Your task to perform on an android device: change notification settings in the gmail app Image 0: 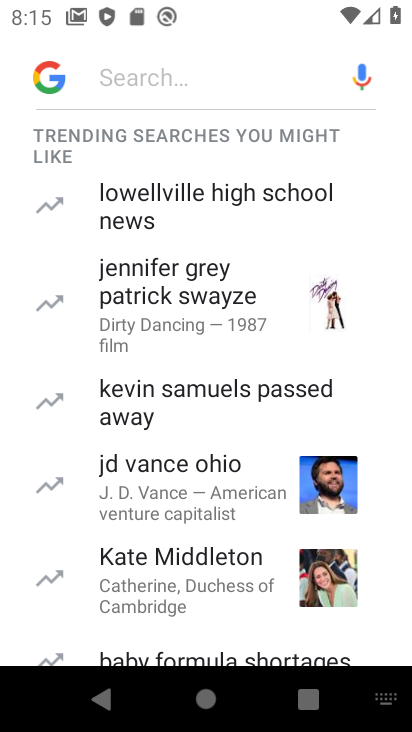
Step 0: press home button
Your task to perform on an android device: change notification settings in the gmail app Image 1: 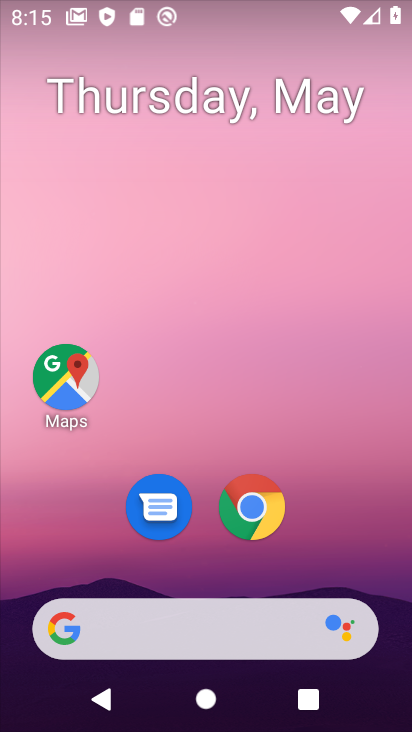
Step 1: drag from (358, 554) to (309, 101)
Your task to perform on an android device: change notification settings in the gmail app Image 2: 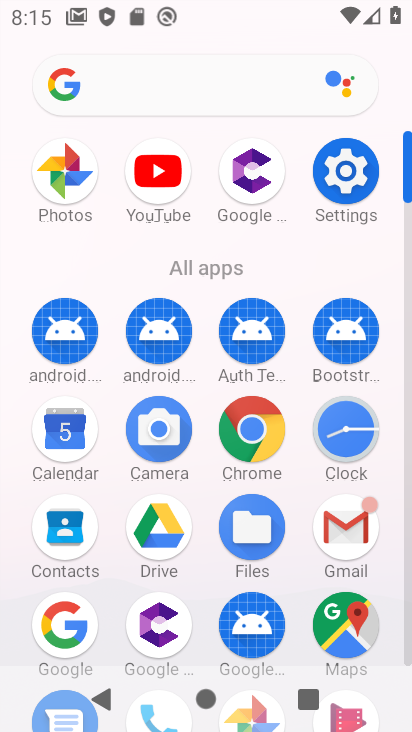
Step 2: click (344, 532)
Your task to perform on an android device: change notification settings in the gmail app Image 3: 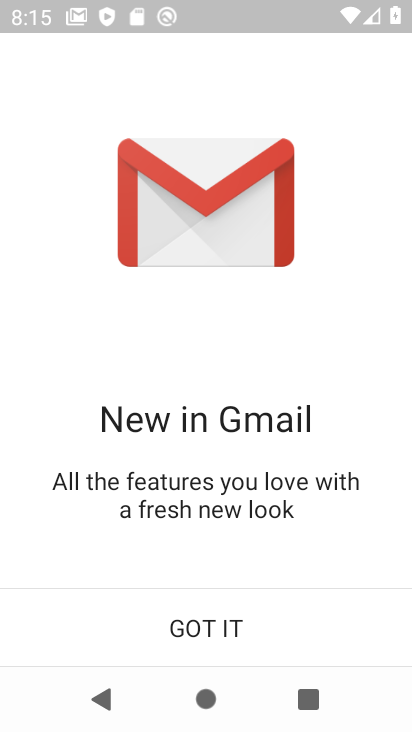
Step 3: click (242, 627)
Your task to perform on an android device: change notification settings in the gmail app Image 4: 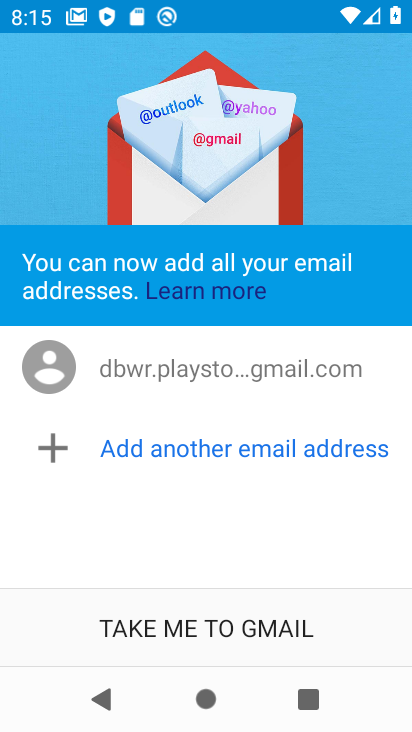
Step 4: click (242, 627)
Your task to perform on an android device: change notification settings in the gmail app Image 5: 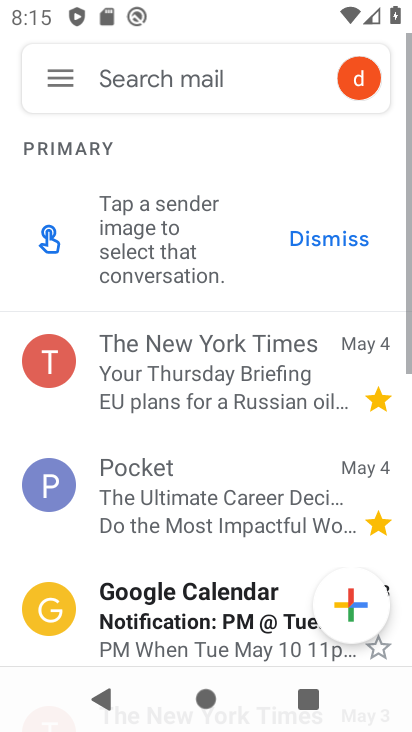
Step 5: click (55, 78)
Your task to perform on an android device: change notification settings in the gmail app Image 6: 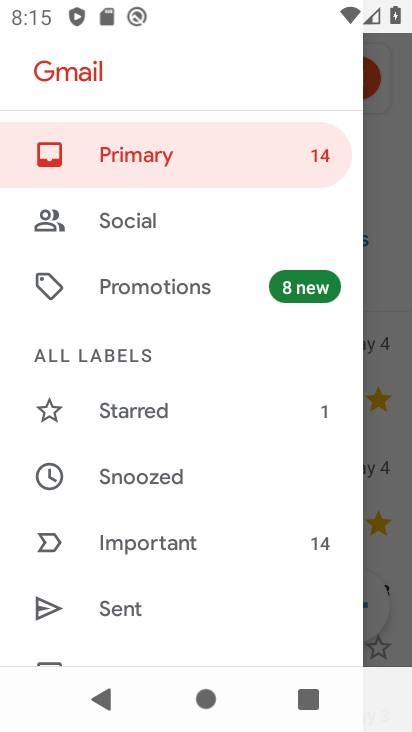
Step 6: drag from (188, 620) to (193, 235)
Your task to perform on an android device: change notification settings in the gmail app Image 7: 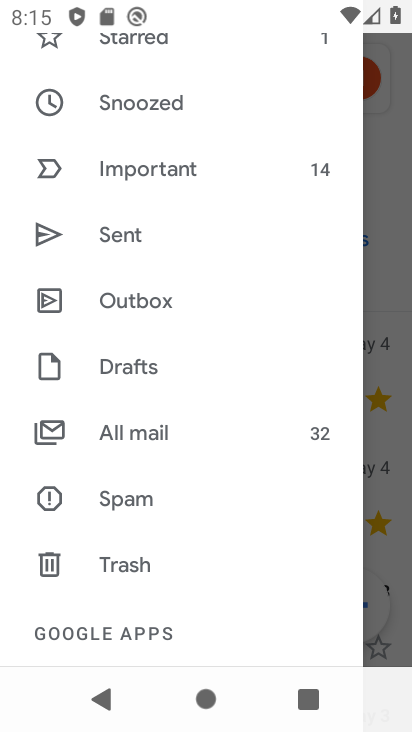
Step 7: drag from (180, 599) to (200, 236)
Your task to perform on an android device: change notification settings in the gmail app Image 8: 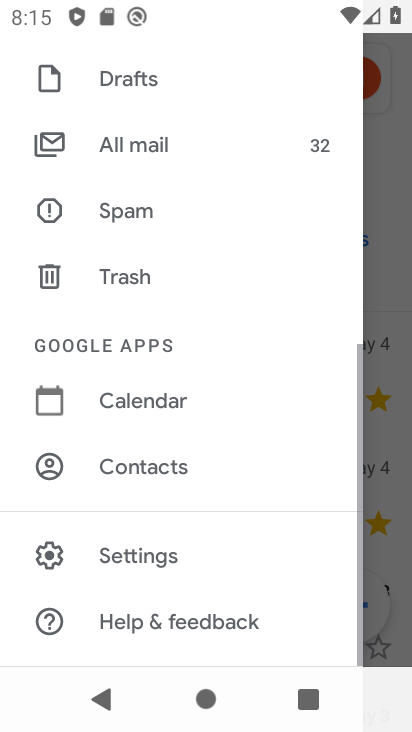
Step 8: click (161, 561)
Your task to perform on an android device: change notification settings in the gmail app Image 9: 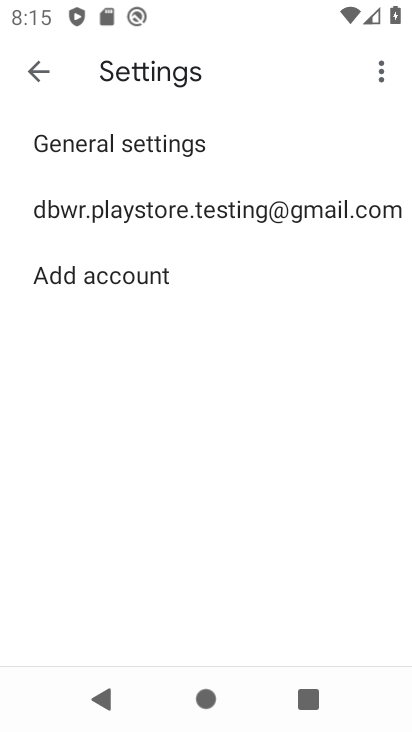
Step 9: click (189, 204)
Your task to perform on an android device: change notification settings in the gmail app Image 10: 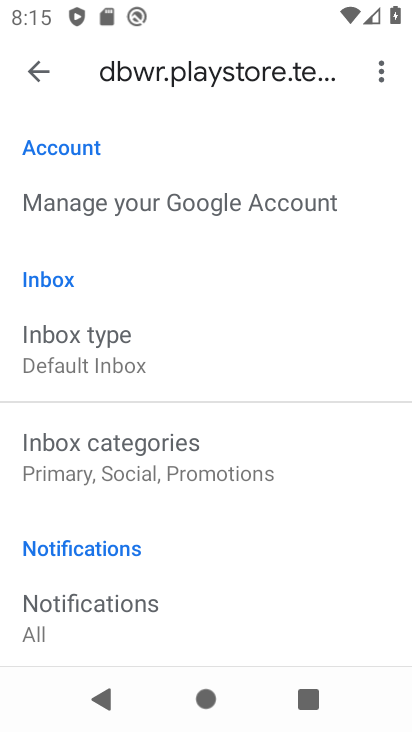
Step 10: click (144, 610)
Your task to perform on an android device: change notification settings in the gmail app Image 11: 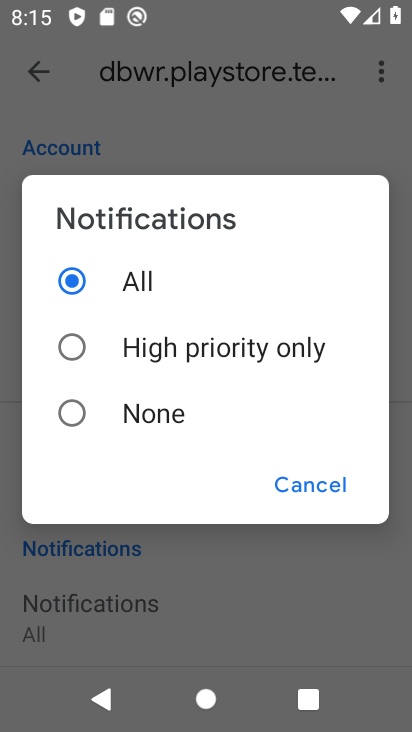
Step 11: click (75, 413)
Your task to perform on an android device: change notification settings in the gmail app Image 12: 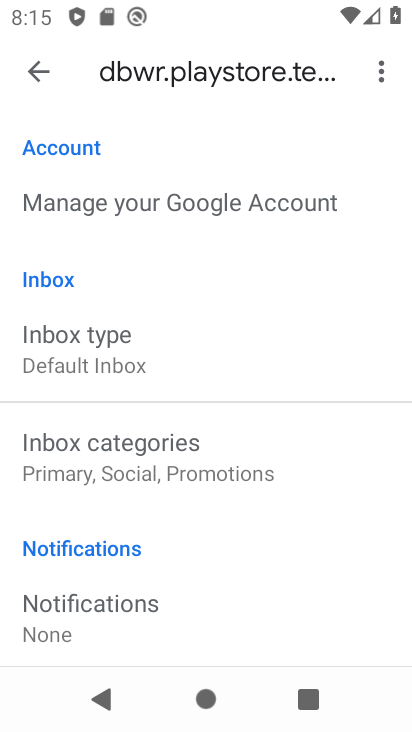
Step 12: task complete